Your task to perform on an android device: turn off smart reply in the gmail app Image 0: 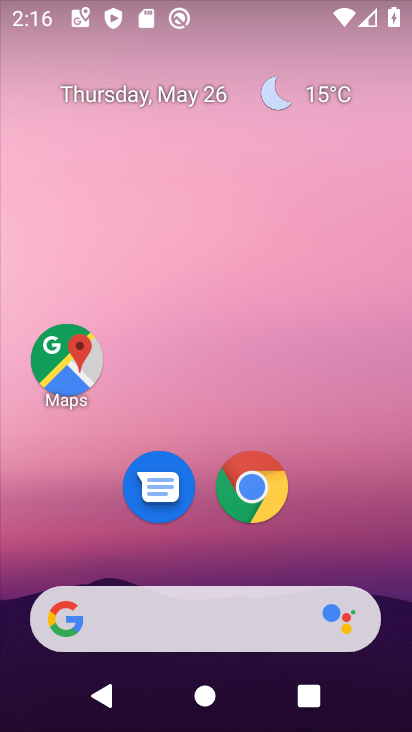
Step 0: drag from (201, 558) to (207, 162)
Your task to perform on an android device: turn off smart reply in the gmail app Image 1: 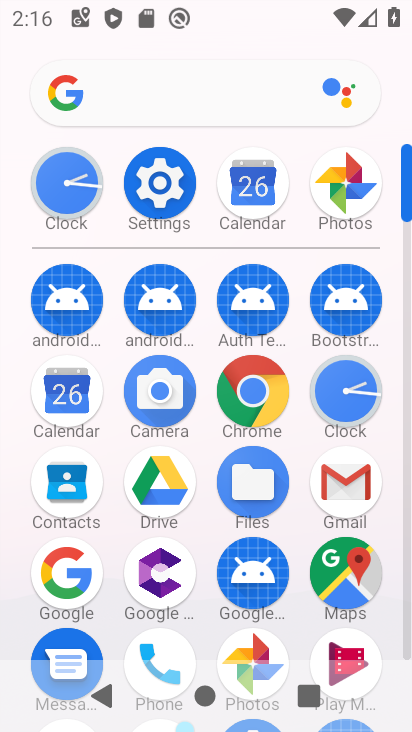
Step 1: drag from (209, 524) to (217, 226)
Your task to perform on an android device: turn off smart reply in the gmail app Image 2: 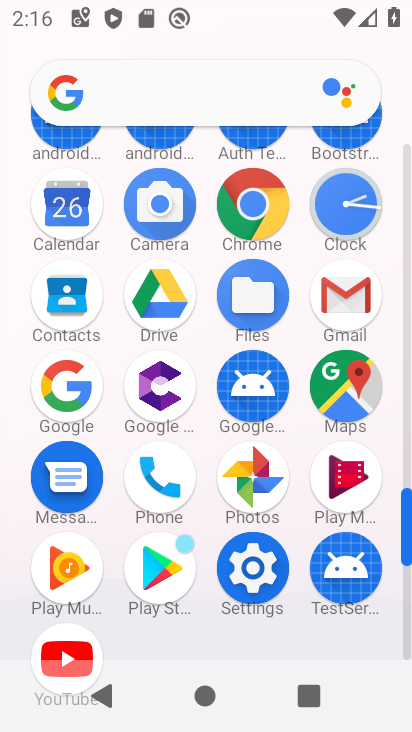
Step 2: click (354, 279)
Your task to perform on an android device: turn off smart reply in the gmail app Image 3: 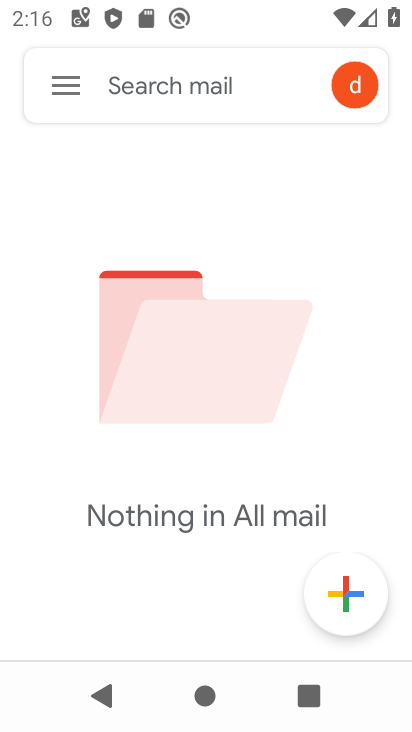
Step 3: click (76, 86)
Your task to perform on an android device: turn off smart reply in the gmail app Image 4: 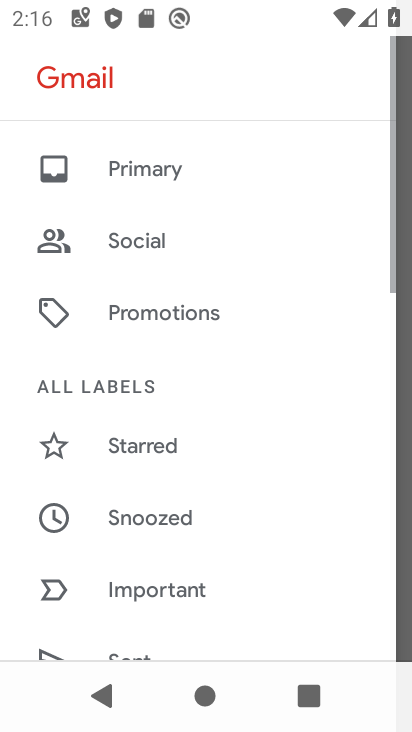
Step 4: drag from (220, 547) to (240, 177)
Your task to perform on an android device: turn off smart reply in the gmail app Image 5: 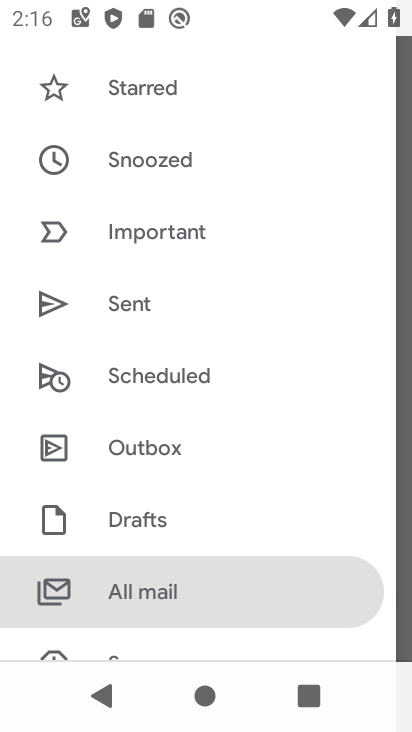
Step 5: drag from (245, 539) to (272, 264)
Your task to perform on an android device: turn off smart reply in the gmail app Image 6: 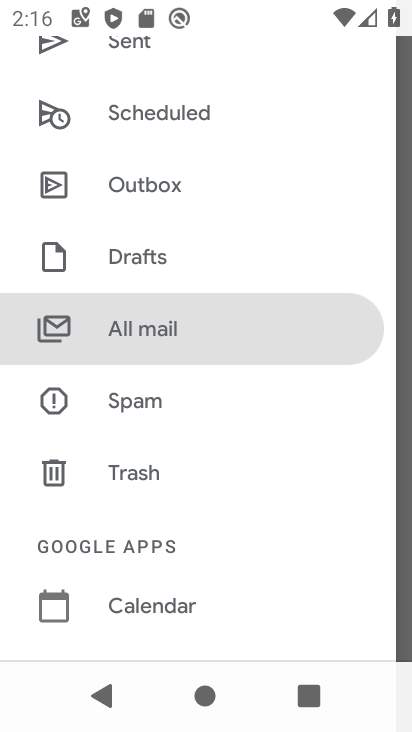
Step 6: drag from (210, 564) to (262, 311)
Your task to perform on an android device: turn off smart reply in the gmail app Image 7: 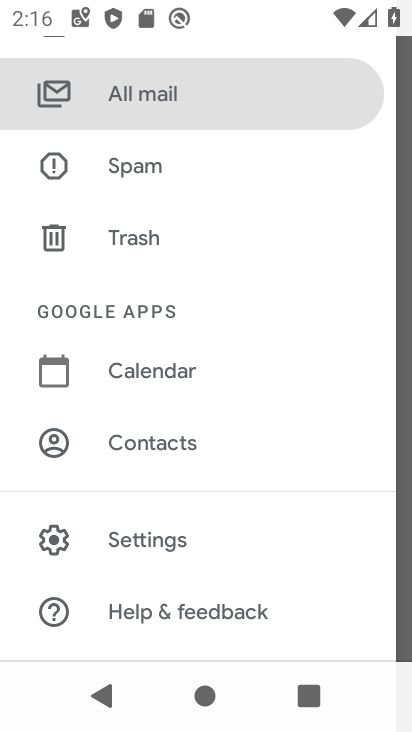
Step 7: click (180, 541)
Your task to perform on an android device: turn off smart reply in the gmail app Image 8: 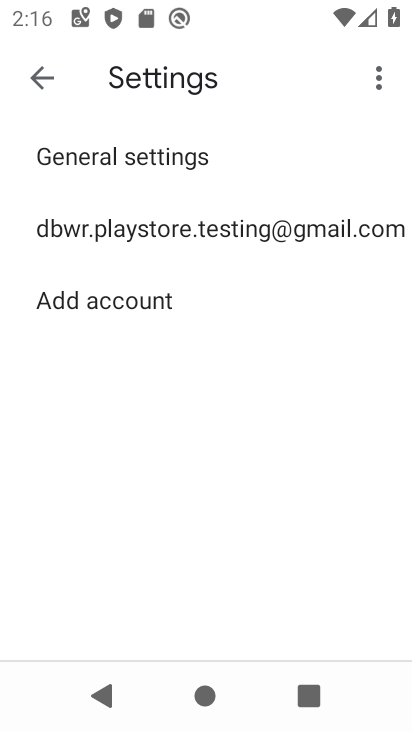
Step 8: click (224, 233)
Your task to perform on an android device: turn off smart reply in the gmail app Image 9: 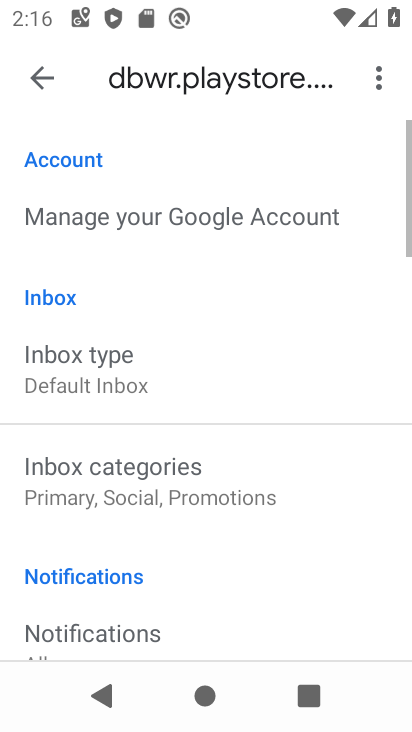
Step 9: drag from (220, 619) to (277, 256)
Your task to perform on an android device: turn off smart reply in the gmail app Image 10: 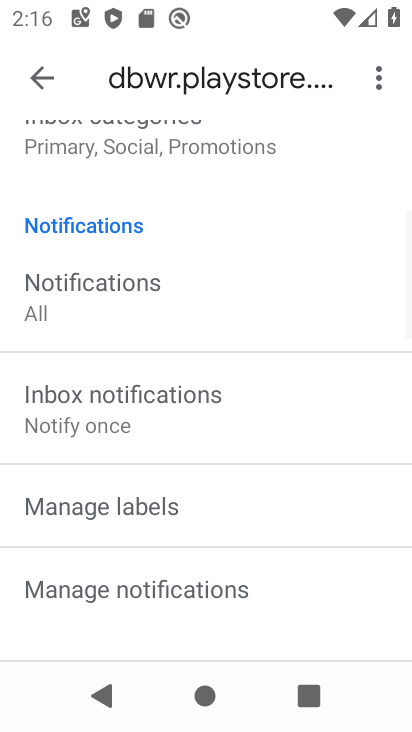
Step 10: drag from (224, 565) to (259, 216)
Your task to perform on an android device: turn off smart reply in the gmail app Image 11: 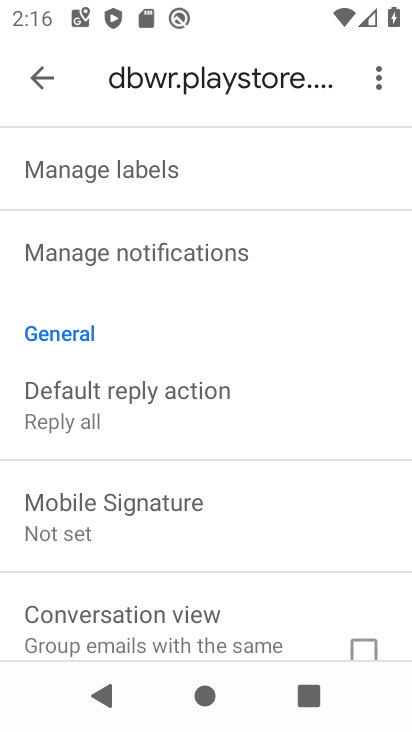
Step 11: drag from (195, 546) to (228, 200)
Your task to perform on an android device: turn off smart reply in the gmail app Image 12: 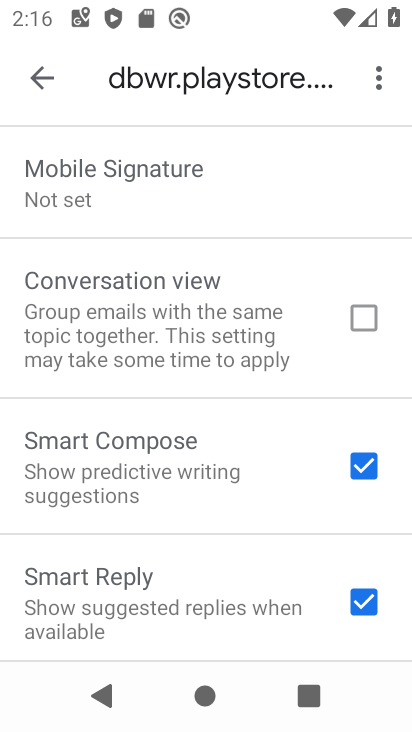
Step 12: drag from (263, 520) to (276, 299)
Your task to perform on an android device: turn off smart reply in the gmail app Image 13: 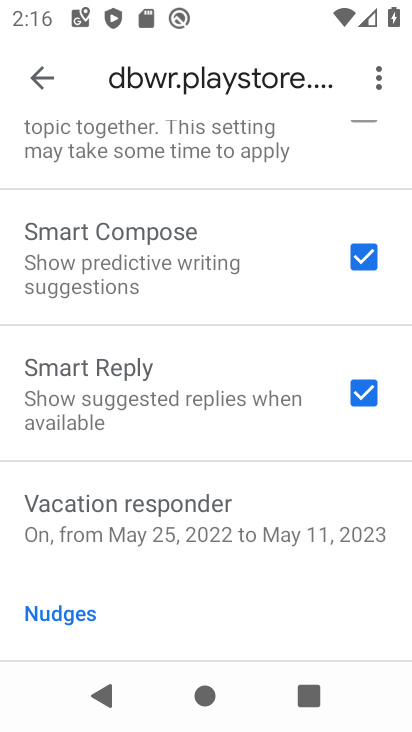
Step 13: click (373, 391)
Your task to perform on an android device: turn off smart reply in the gmail app Image 14: 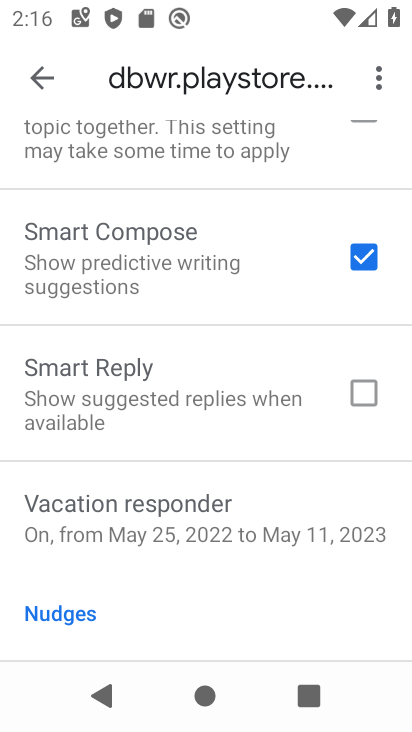
Step 14: task complete